Your task to perform on an android device: Show me the alarms in the clock app Image 0: 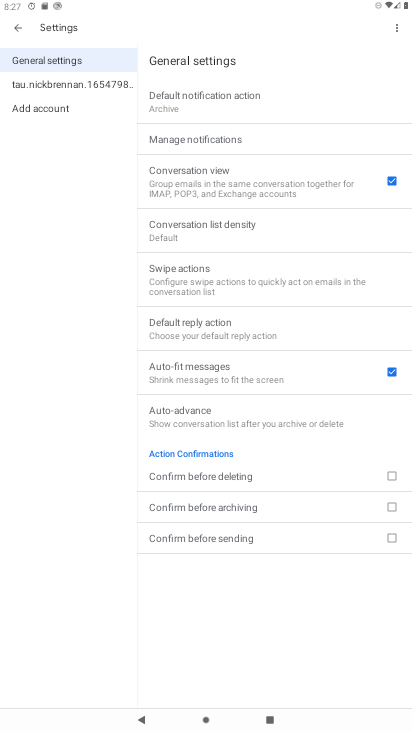
Step 0: press home button
Your task to perform on an android device: Show me the alarms in the clock app Image 1: 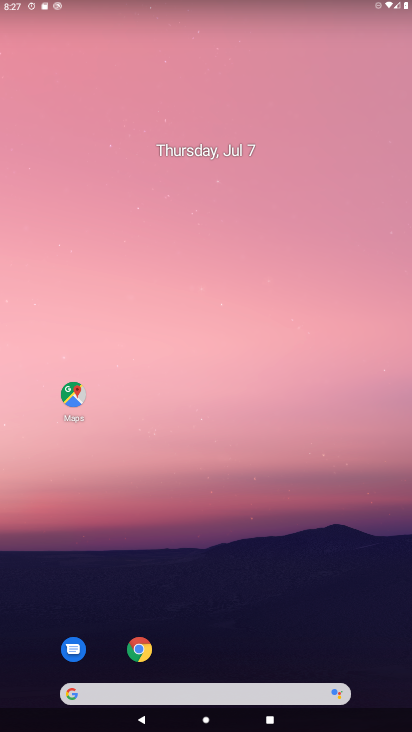
Step 1: drag from (204, 660) to (212, 0)
Your task to perform on an android device: Show me the alarms in the clock app Image 2: 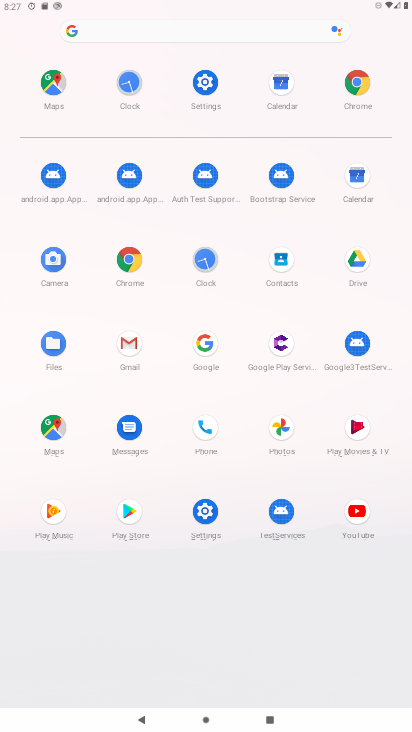
Step 2: click (126, 83)
Your task to perform on an android device: Show me the alarms in the clock app Image 3: 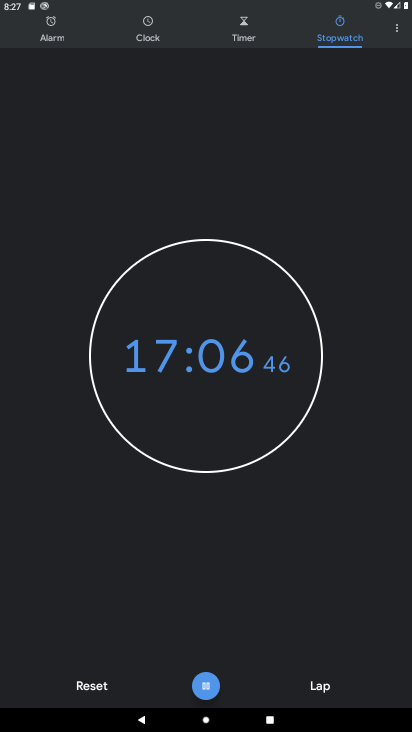
Step 3: click (55, 26)
Your task to perform on an android device: Show me the alarms in the clock app Image 4: 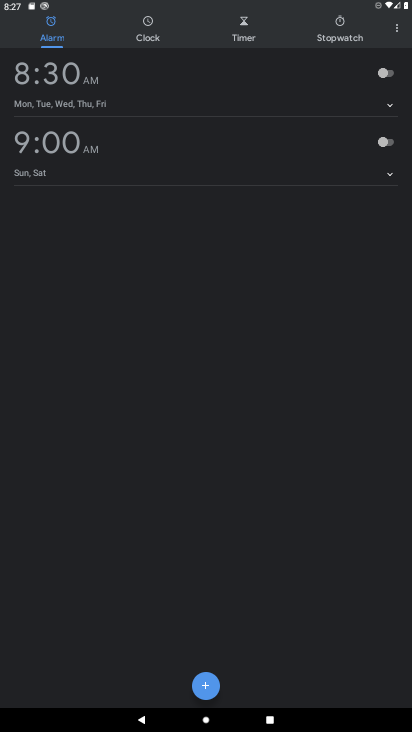
Step 4: task complete